Your task to perform on an android device: Go to eBay Image 0: 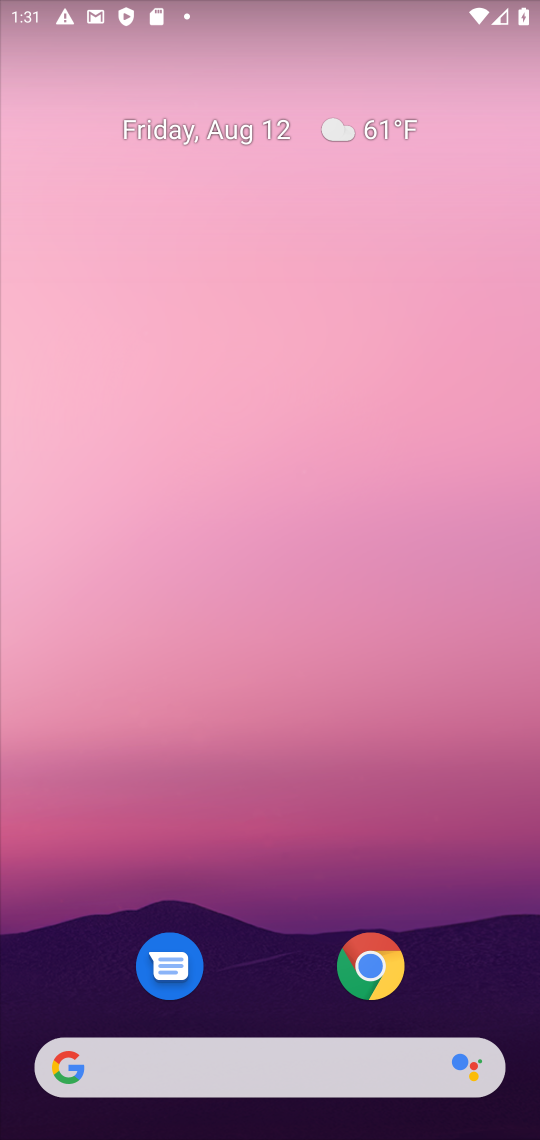
Step 0: drag from (287, 686) to (381, 114)
Your task to perform on an android device: Go to eBay Image 1: 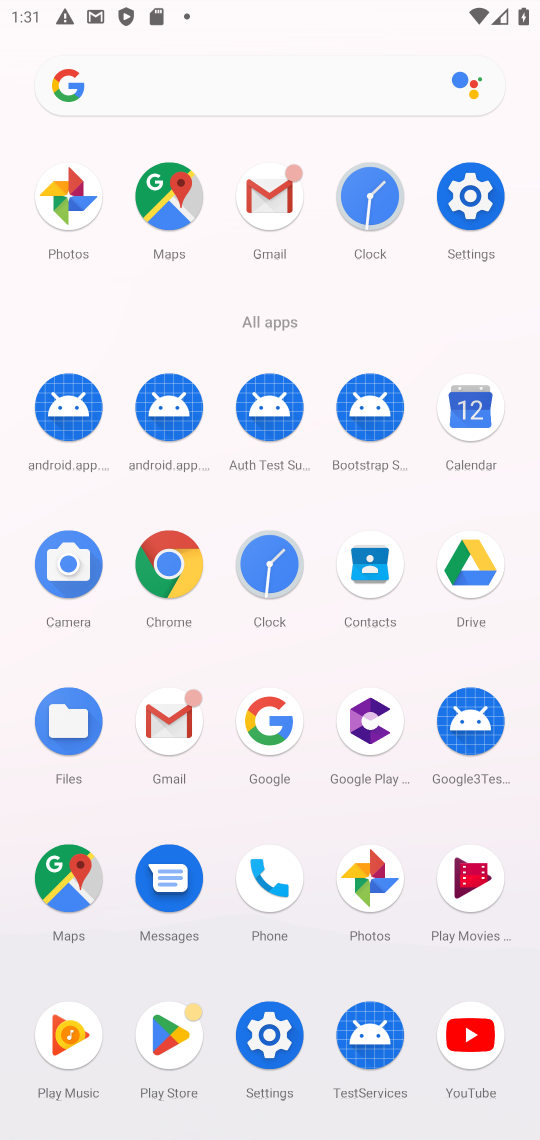
Step 1: click (168, 558)
Your task to perform on an android device: Go to eBay Image 2: 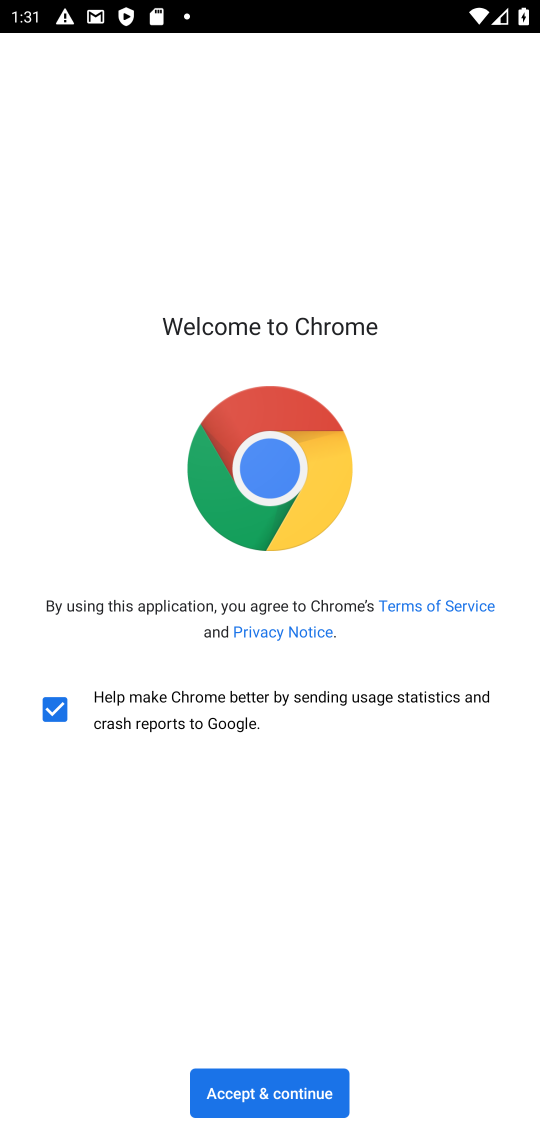
Step 2: click (246, 1096)
Your task to perform on an android device: Go to eBay Image 3: 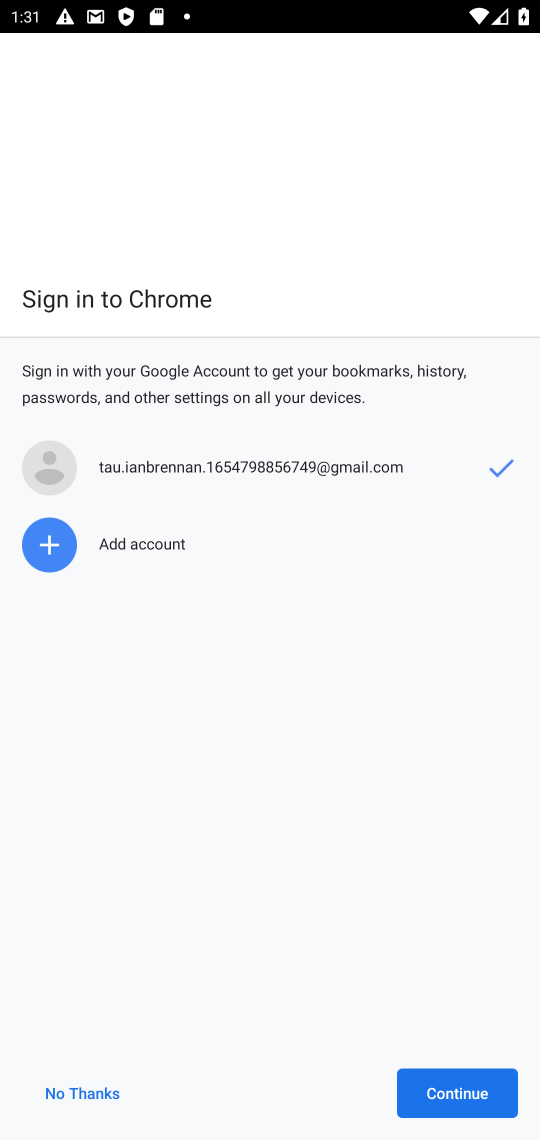
Step 3: click (463, 1095)
Your task to perform on an android device: Go to eBay Image 4: 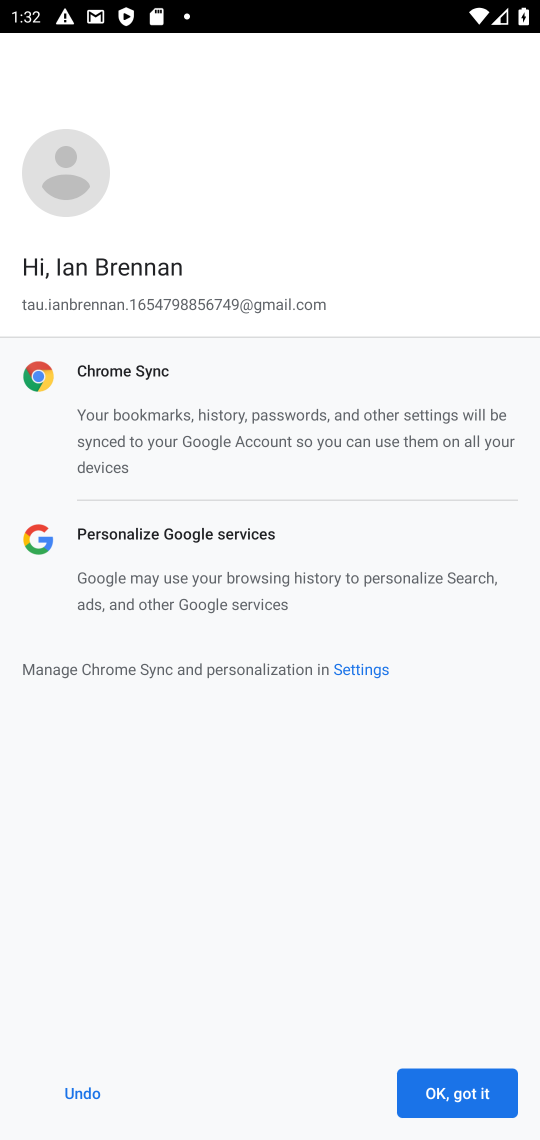
Step 4: click (463, 1095)
Your task to perform on an android device: Go to eBay Image 5: 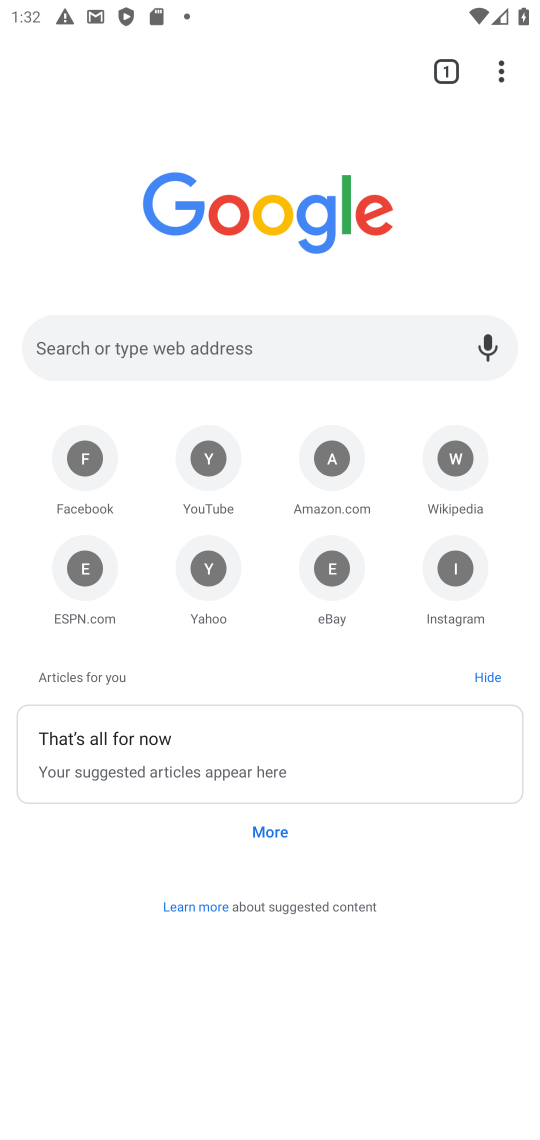
Step 5: click (310, 352)
Your task to perform on an android device: Go to eBay Image 6: 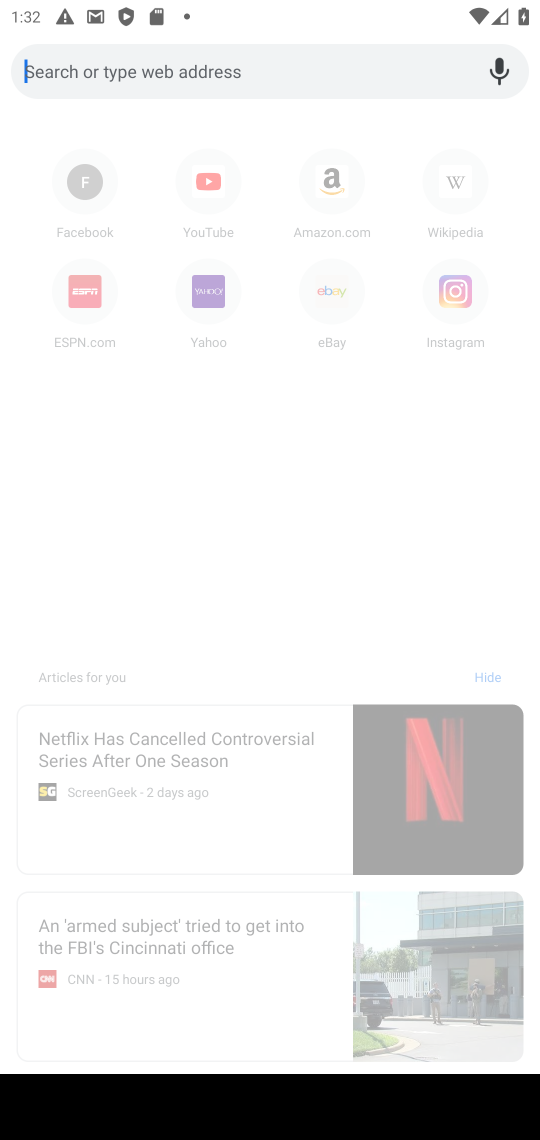
Step 6: type "ebay"
Your task to perform on an android device: Go to eBay Image 7: 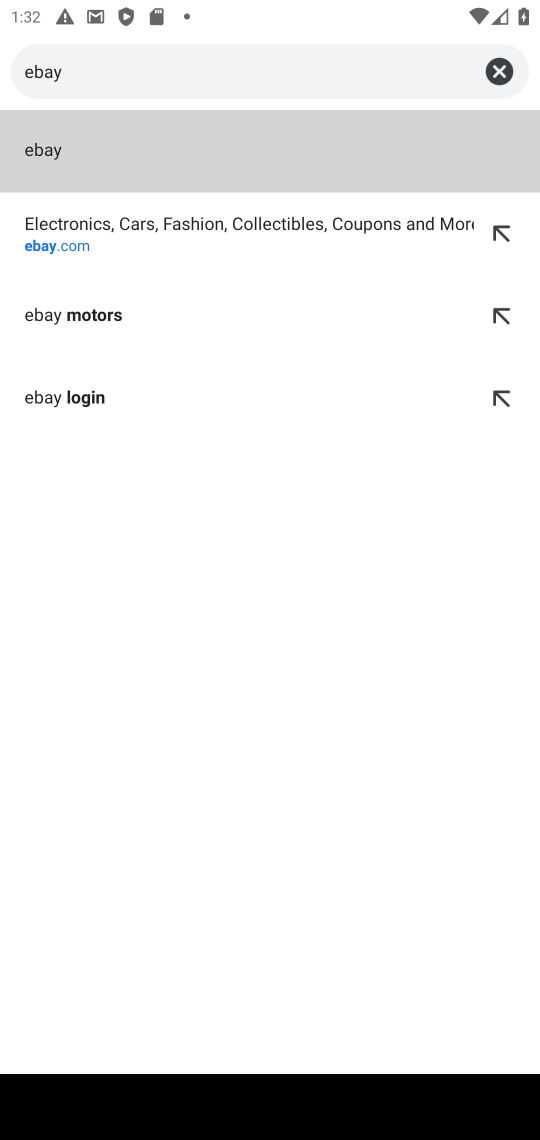
Step 7: click (44, 234)
Your task to perform on an android device: Go to eBay Image 8: 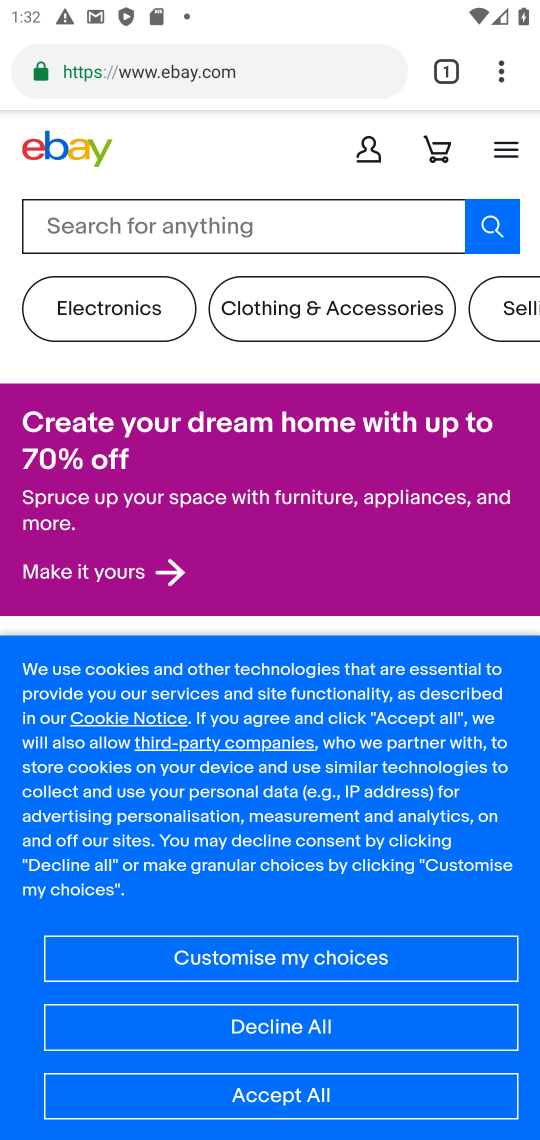
Step 8: task complete